Your task to perform on an android device: Open privacy settings Image 0: 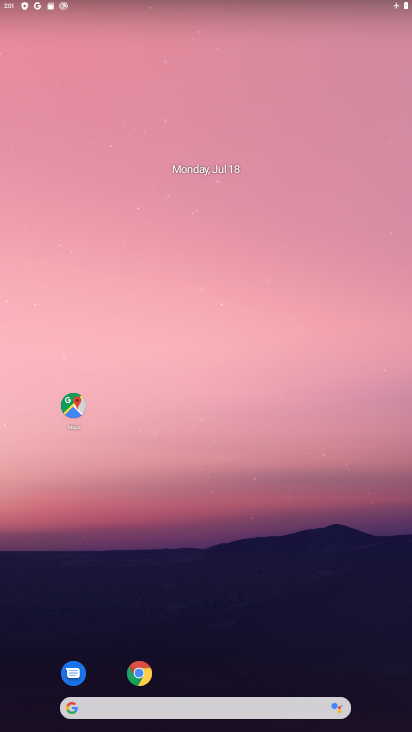
Step 0: drag from (210, 700) to (267, 213)
Your task to perform on an android device: Open privacy settings Image 1: 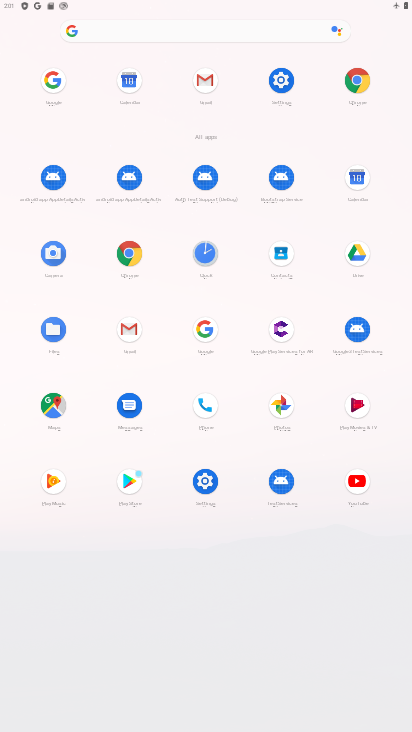
Step 1: click (282, 81)
Your task to perform on an android device: Open privacy settings Image 2: 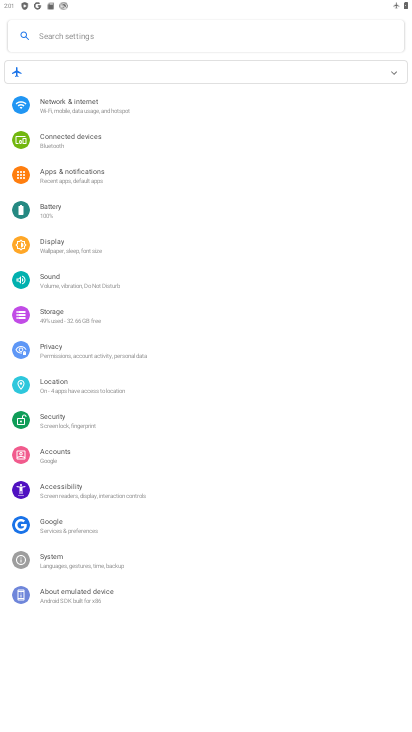
Step 2: click (74, 355)
Your task to perform on an android device: Open privacy settings Image 3: 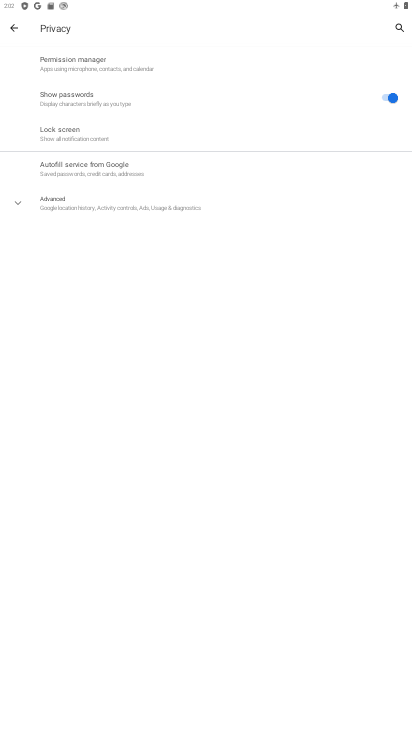
Step 3: task complete